Your task to perform on an android device: make emails show in primary in the gmail app Image 0: 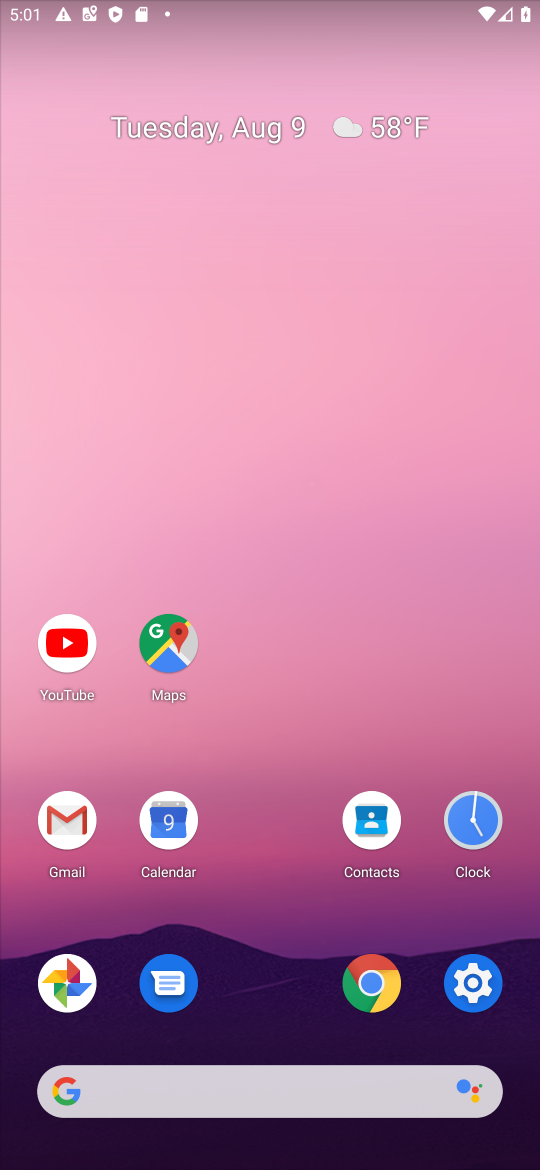
Step 0: click (60, 812)
Your task to perform on an android device: make emails show in primary in the gmail app Image 1: 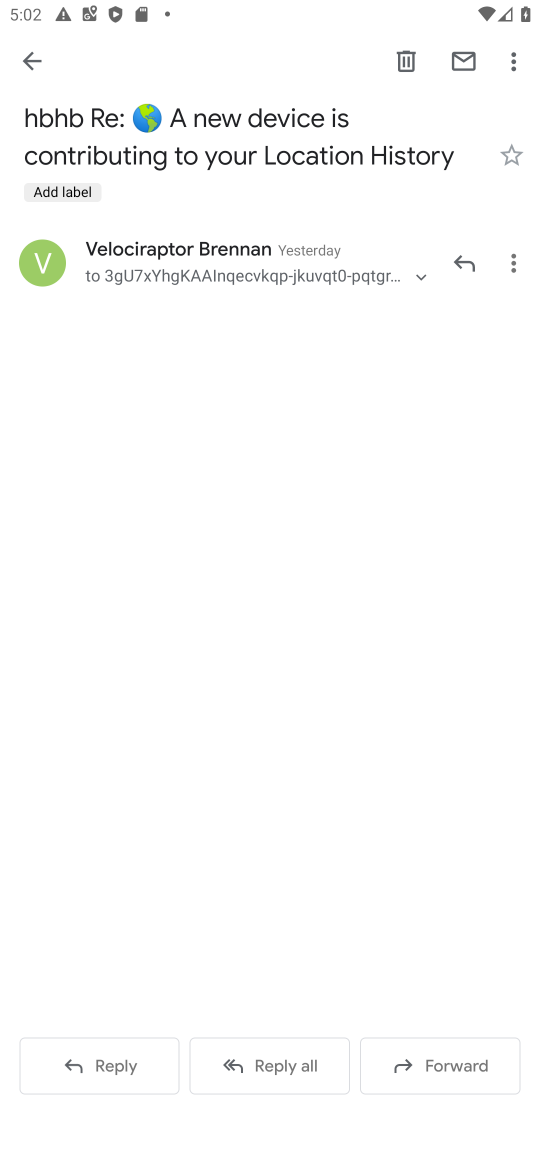
Step 1: click (26, 56)
Your task to perform on an android device: make emails show in primary in the gmail app Image 2: 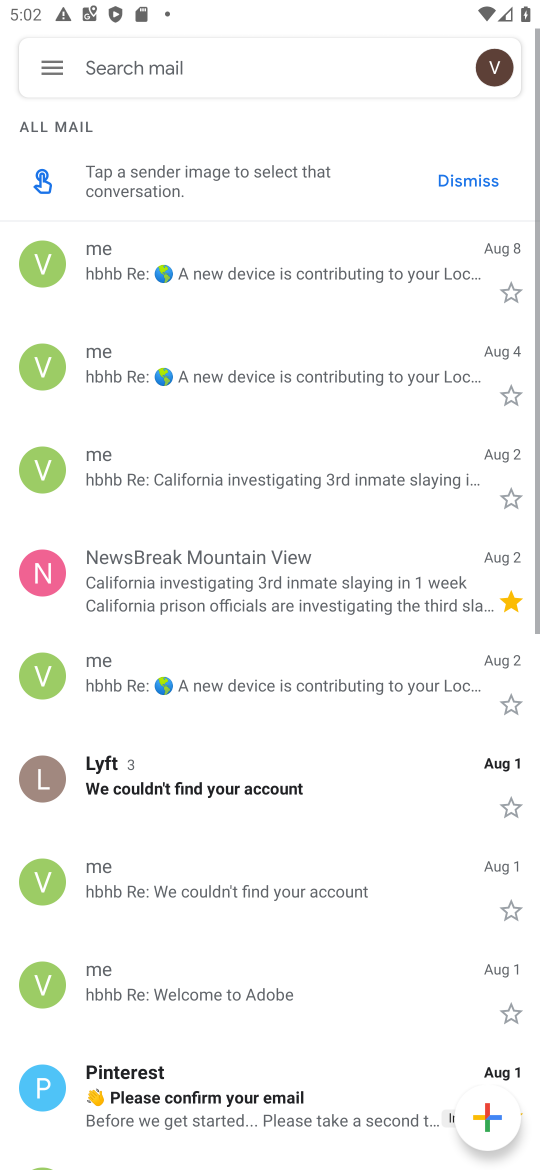
Step 2: click (55, 60)
Your task to perform on an android device: make emails show in primary in the gmail app Image 3: 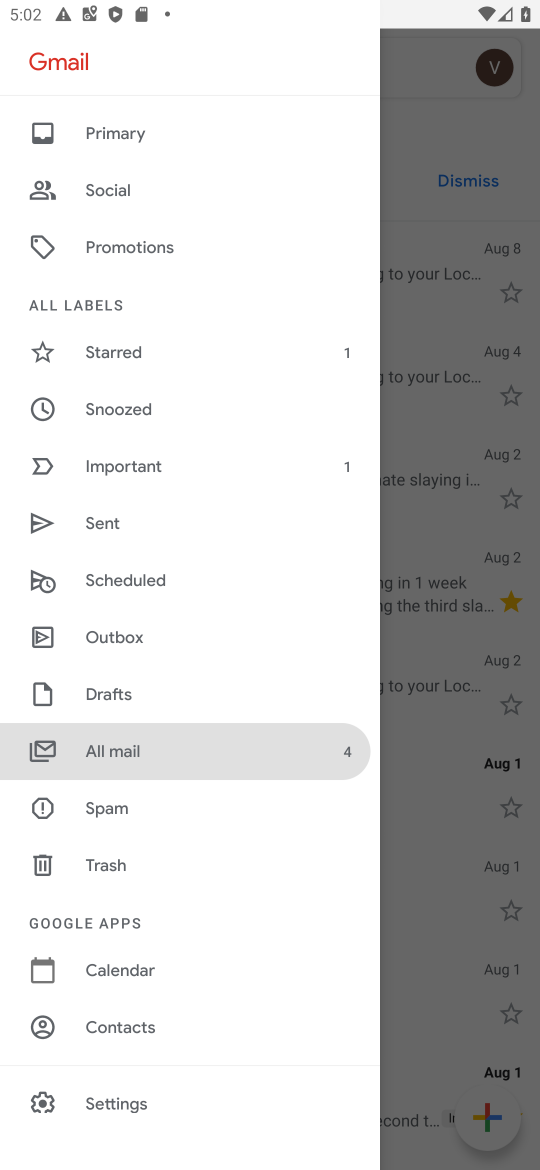
Step 3: click (105, 127)
Your task to perform on an android device: make emails show in primary in the gmail app Image 4: 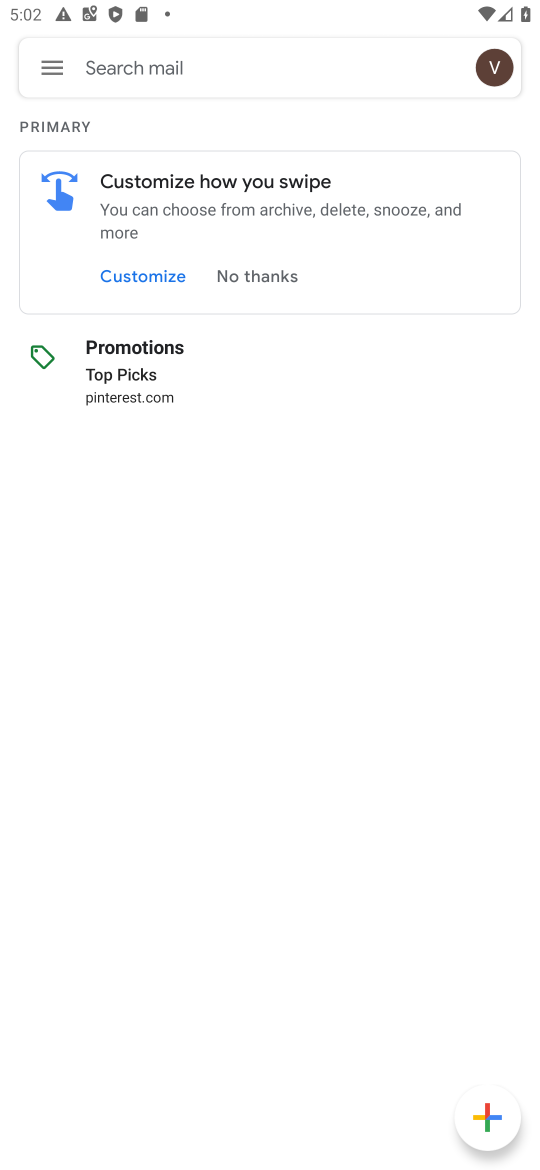
Step 4: task complete